Your task to perform on an android device: Open the web browser Image 0: 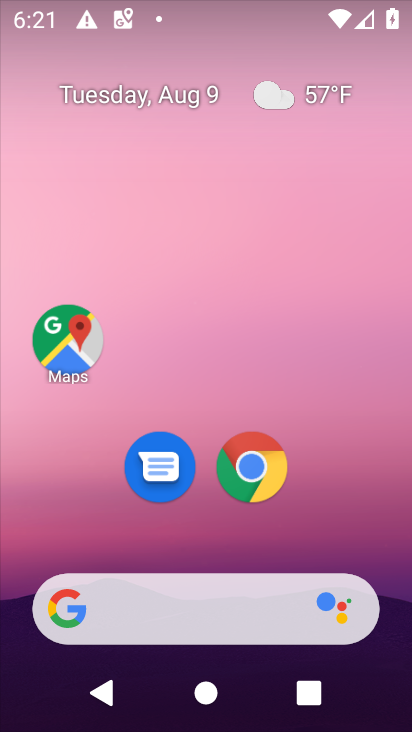
Step 0: click (261, 468)
Your task to perform on an android device: Open the web browser Image 1: 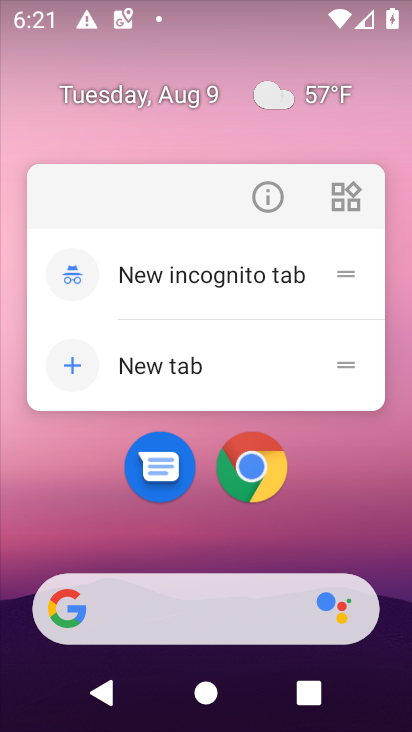
Step 1: click (252, 452)
Your task to perform on an android device: Open the web browser Image 2: 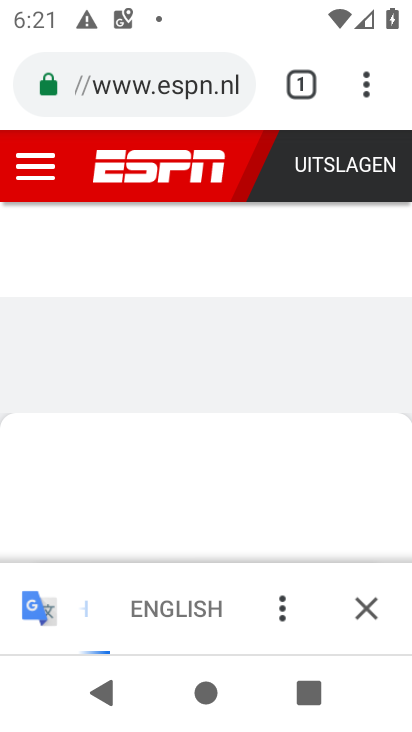
Step 2: click (259, 467)
Your task to perform on an android device: Open the web browser Image 3: 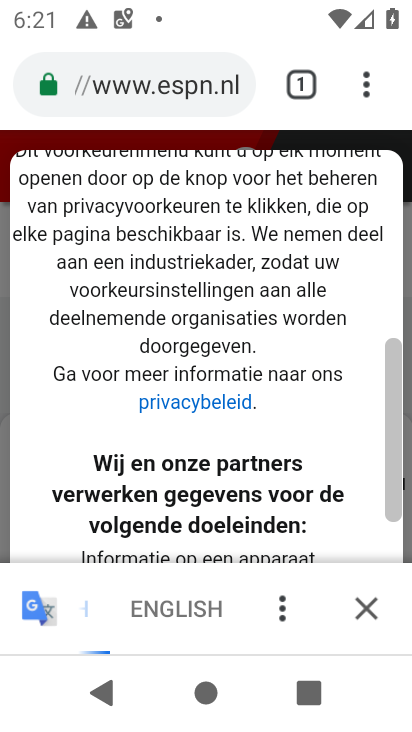
Step 3: task complete